Your task to perform on an android device: turn on wifi Image 0: 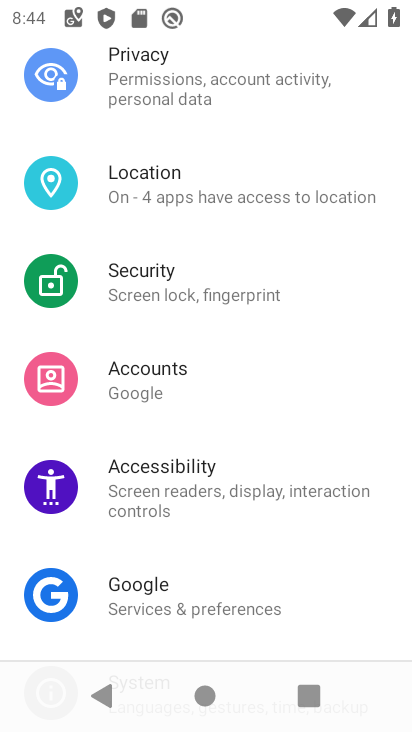
Step 0: press back button
Your task to perform on an android device: turn on wifi Image 1: 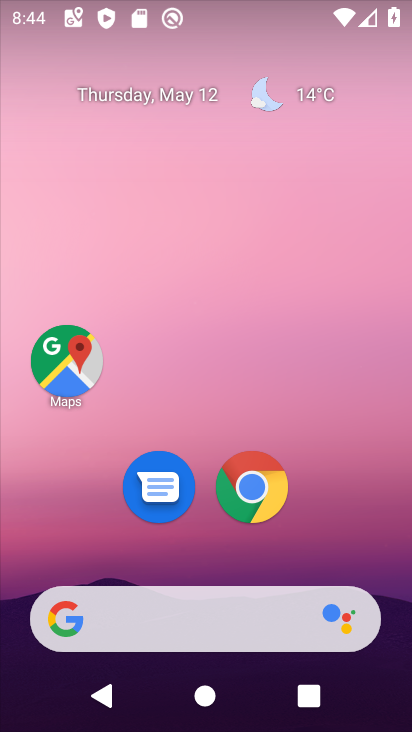
Step 1: drag from (17, 358) to (83, 224)
Your task to perform on an android device: turn on wifi Image 2: 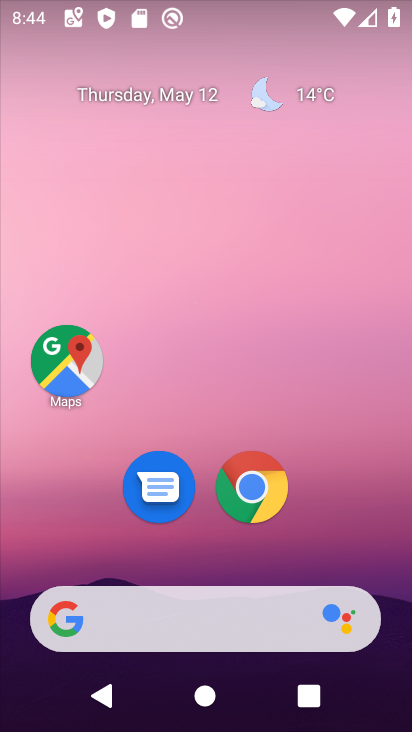
Step 2: drag from (115, 391) to (254, 152)
Your task to perform on an android device: turn on wifi Image 3: 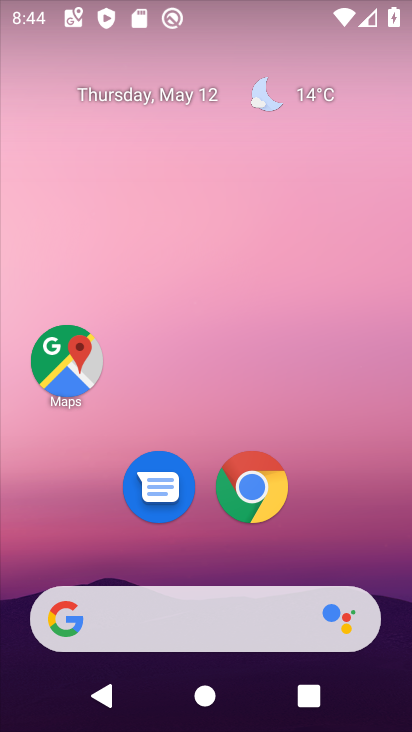
Step 3: drag from (116, 530) to (405, 79)
Your task to perform on an android device: turn on wifi Image 4: 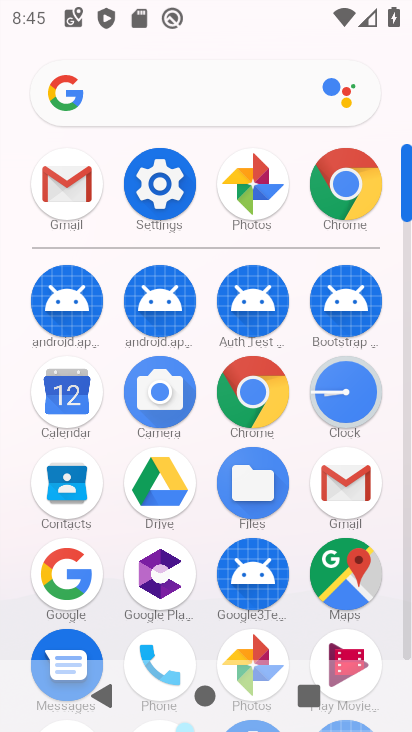
Step 4: click (158, 175)
Your task to perform on an android device: turn on wifi Image 5: 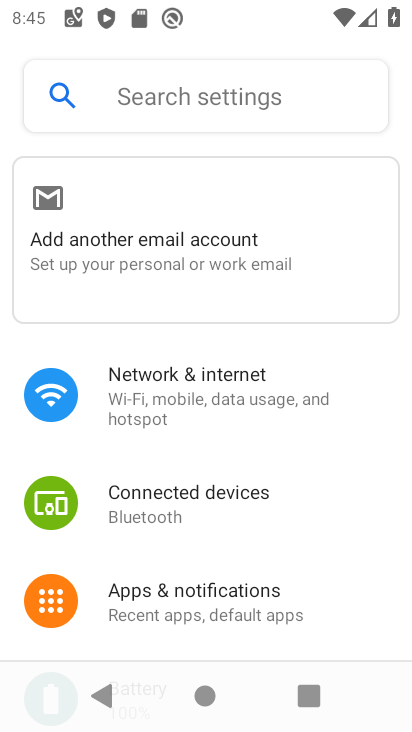
Step 5: click (118, 376)
Your task to perform on an android device: turn on wifi Image 6: 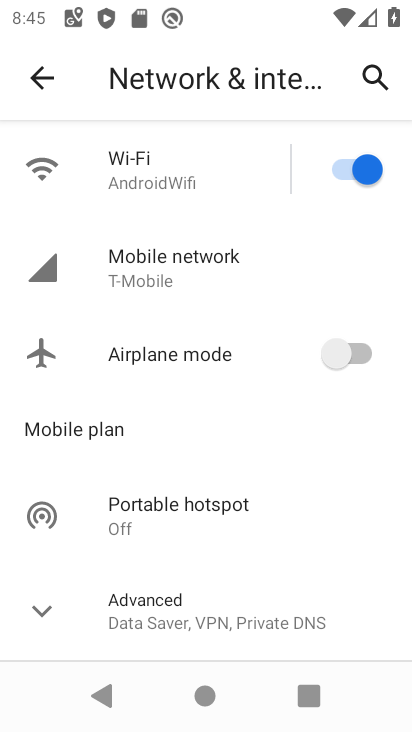
Step 6: click (160, 178)
Your task to perform on an android device: turn on wifi Image 7: 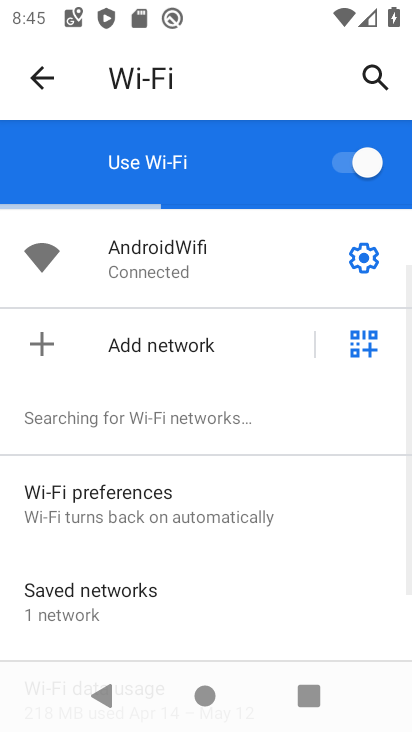
Step 7: click (364, 156)
Your task to perform on an android device: turn on wifi Image 8: 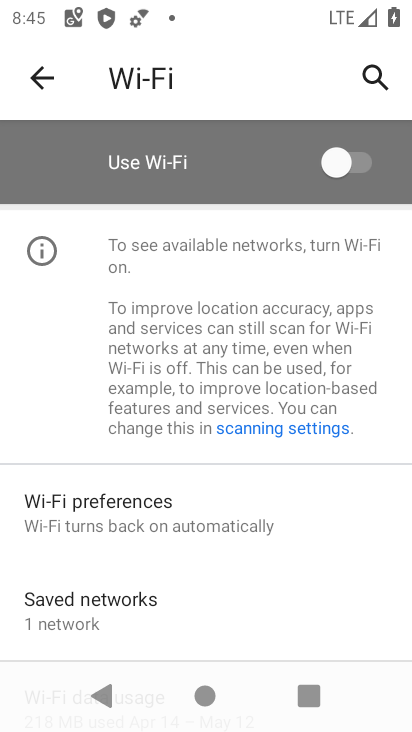
Step 8: task complete